Your task to perform on an android device: change the upload size in google photos Image 0: 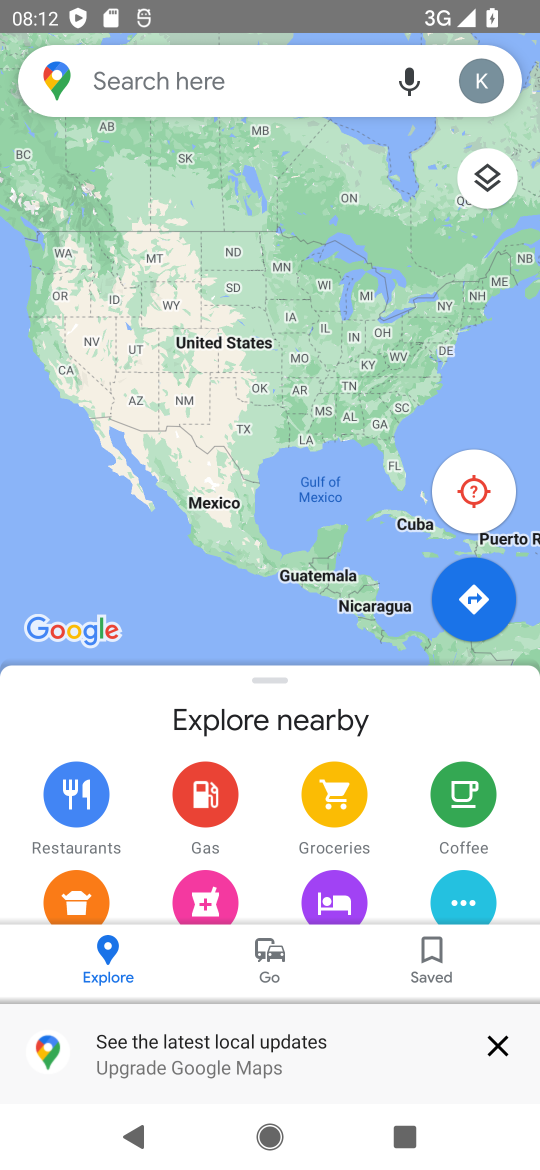
Step 0: press home button
Your task to perform on an android device: change the upload size in google photos Image 1: 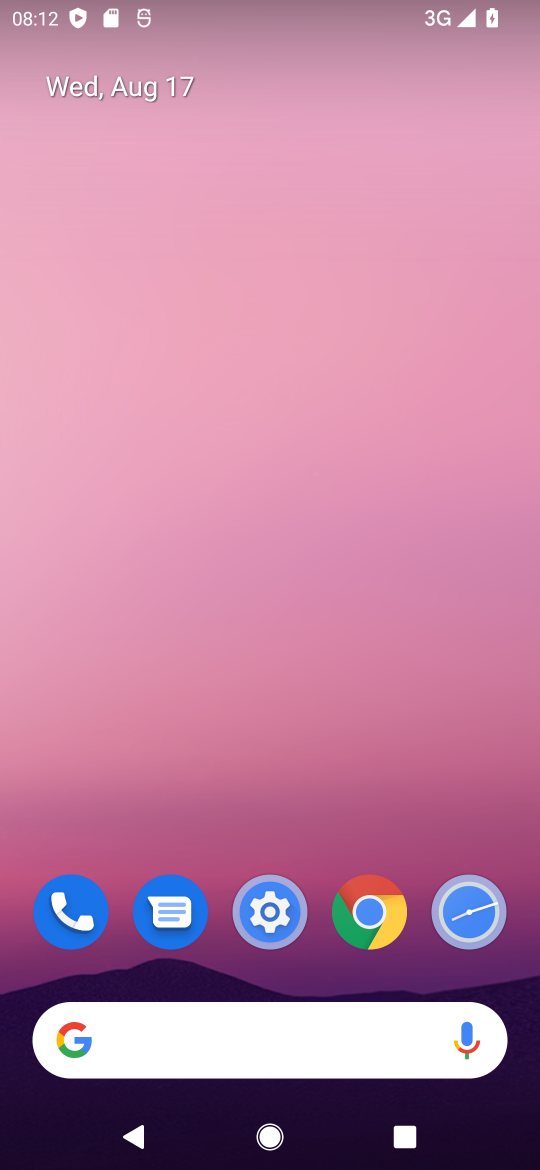
Step 1: drag from (273, 1004) to (335, 56)
Your task to perform on an android device: change the upload size in google photos Image 2: 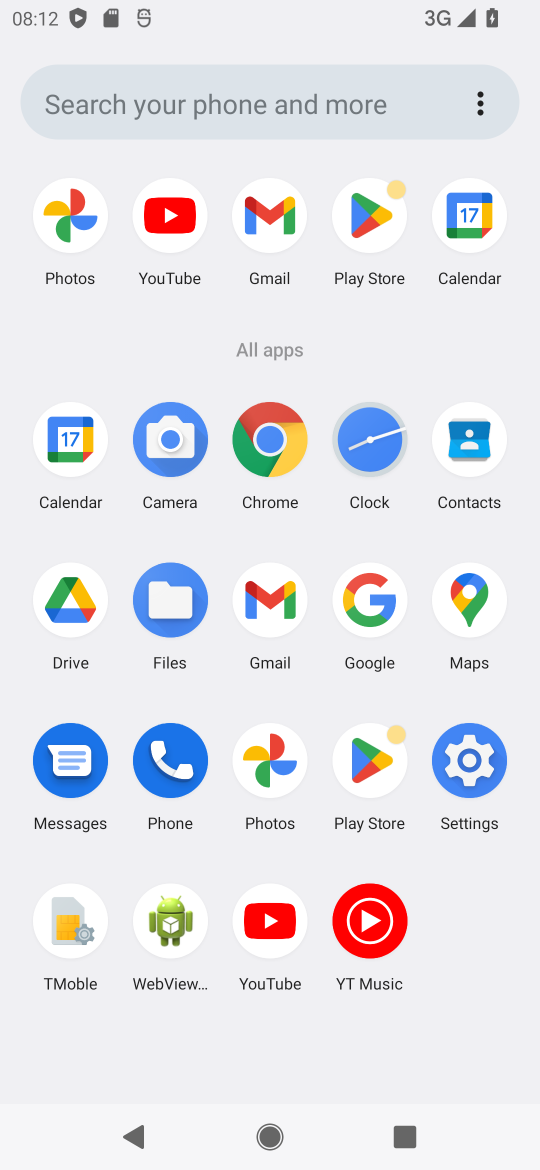
Step 2: click (270, 753)
Your task to perform on an android device: change the upload size in google photos Image 3: 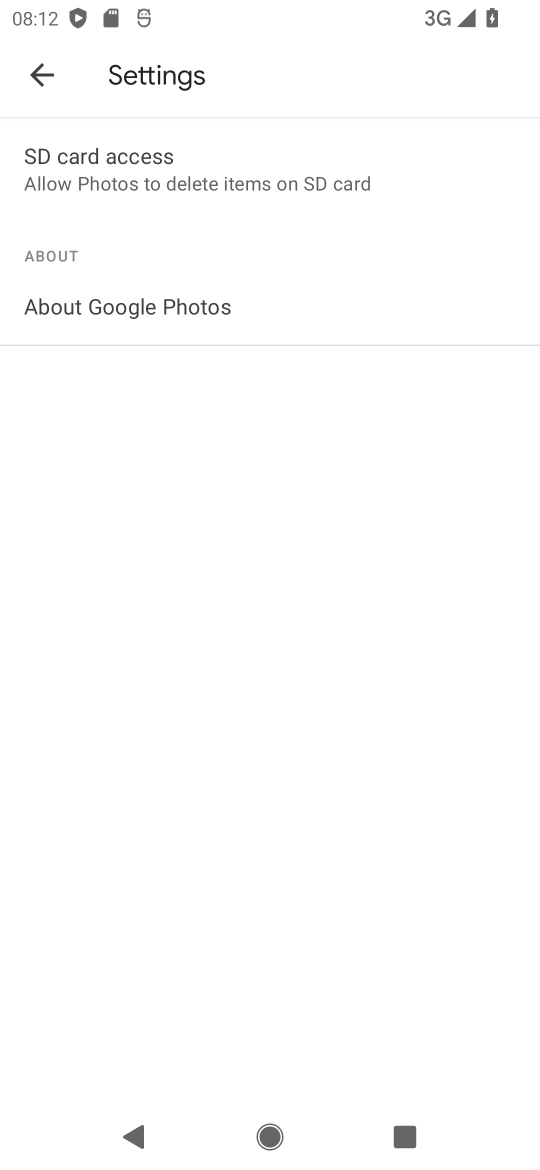
Step 3: click (45, 67)
Your task to perform on an android device: change the upload size in google photos Image 4: 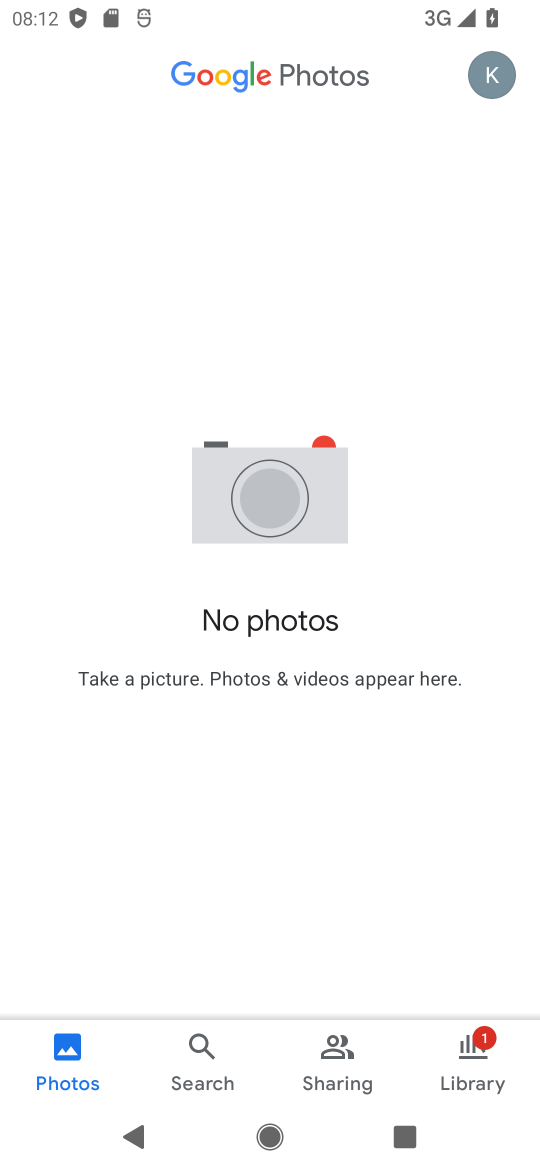
Step 4: click (493, 79)
Your task to perform on an android device: change the upload size in google photos Image 5: 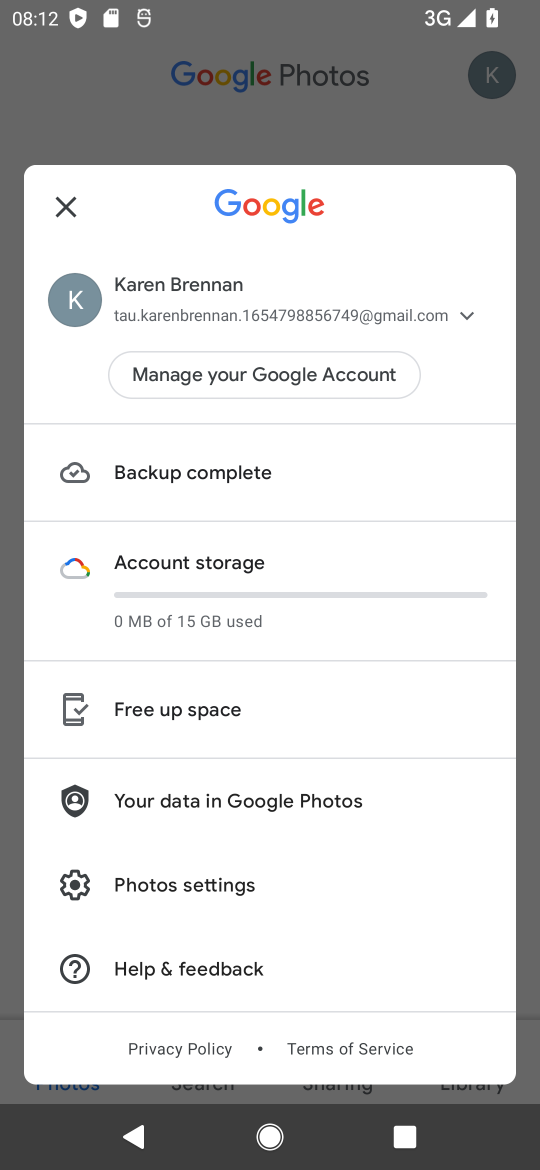
Step 5: click (165, 876)
Your task to perform on an android device: change the upload size in google photos Image 6: 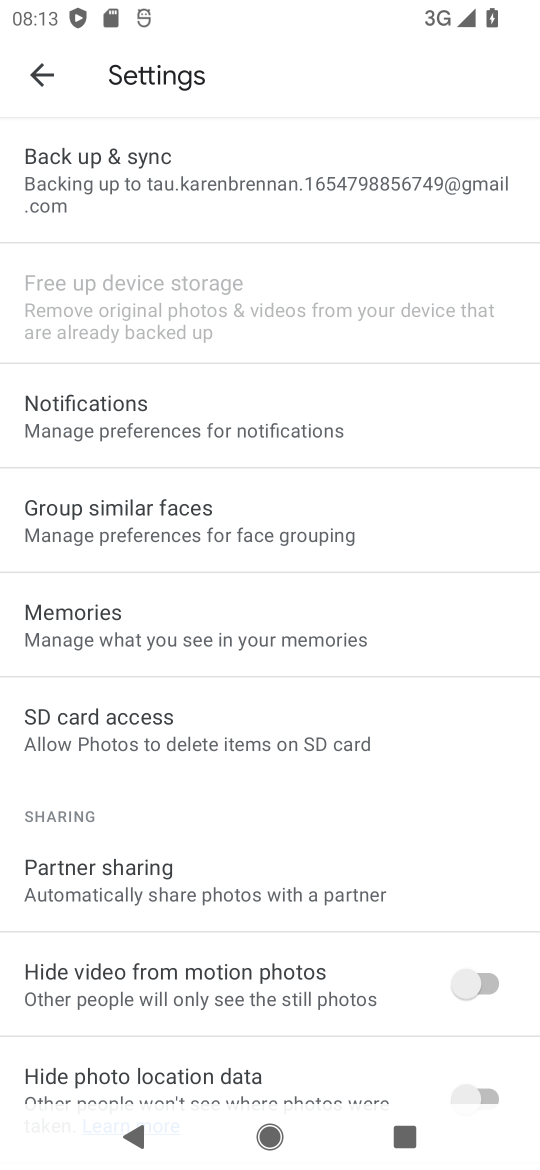
Step 6: click (140, 178)
Your task to perform on an android device: change the upload size in google photos Image 7: 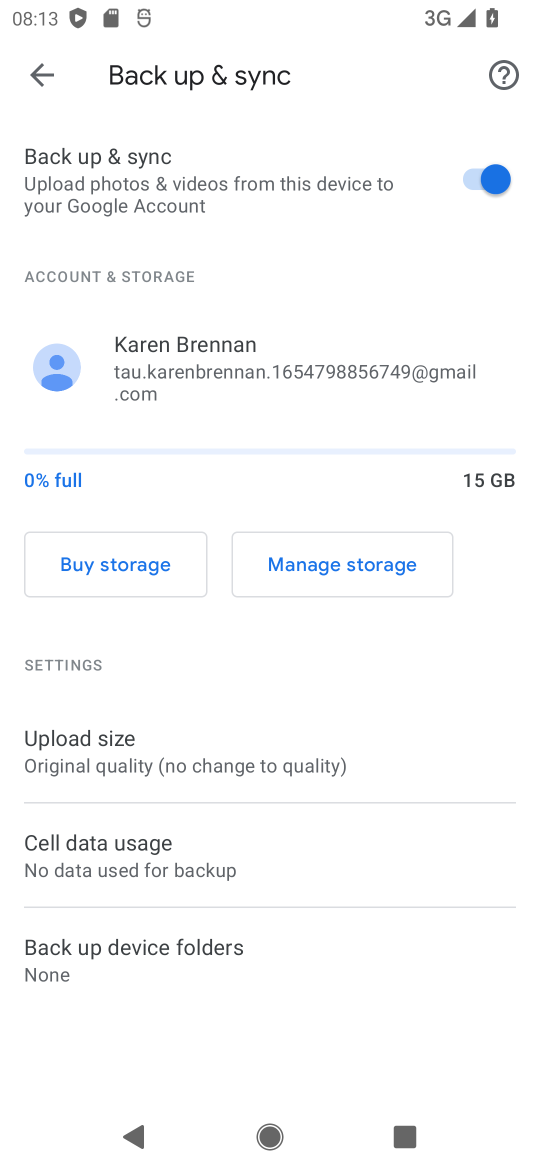
Step 7: click (69, 744)
Your task to perform on an android device: change the upload size in google photos Image 8: 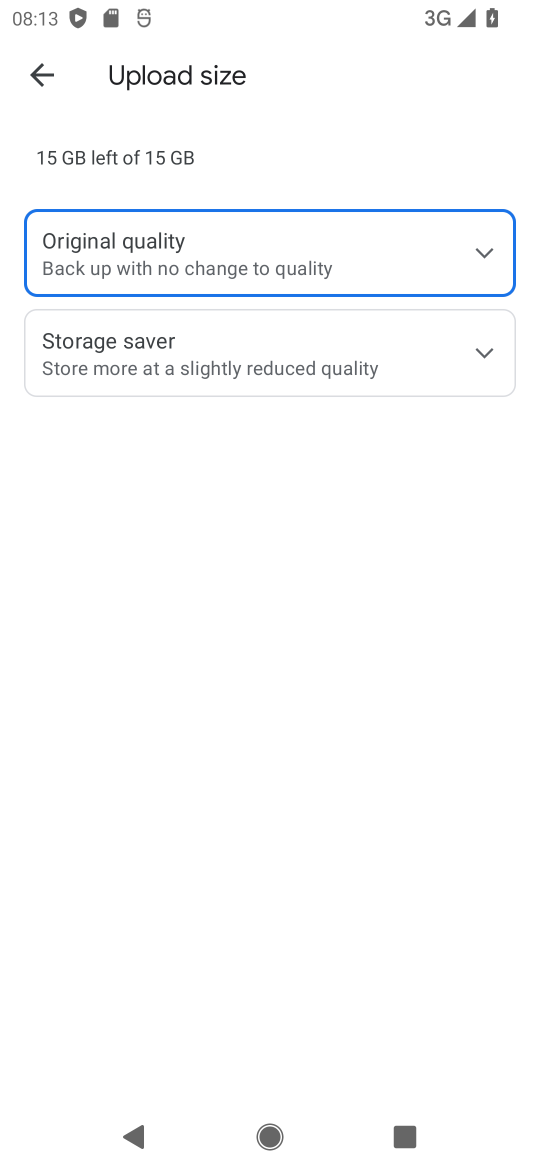
Step 8: click (104, 336)
Your task to perform on an android device: change the upload size in google photos Image 9: 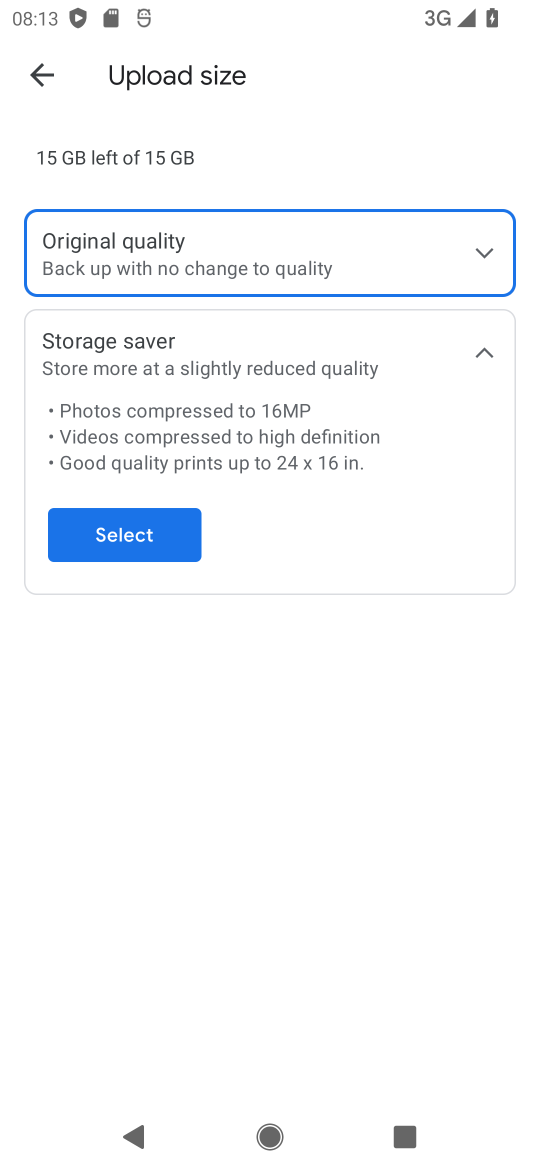
Step 9: click (142, 516)
Your task to perform on an android device: change the upload size in google photos Image 10: 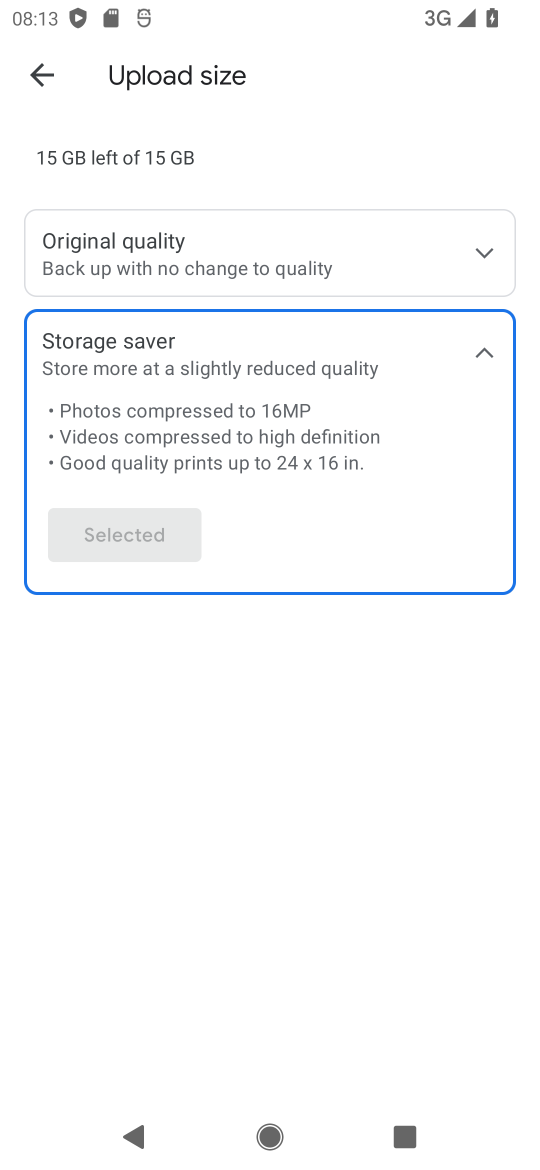
Step 10: task complete